Your task to perform on an android device: Open internet settings Image 0: 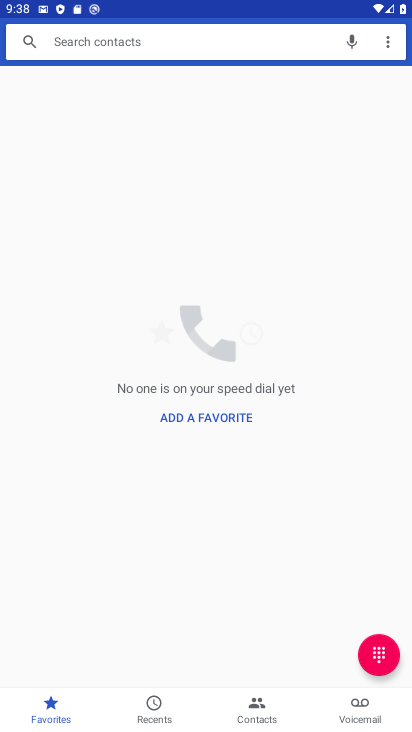
Step 0: press home button
Your task to perform on an android device: Open internet settings Image 1: 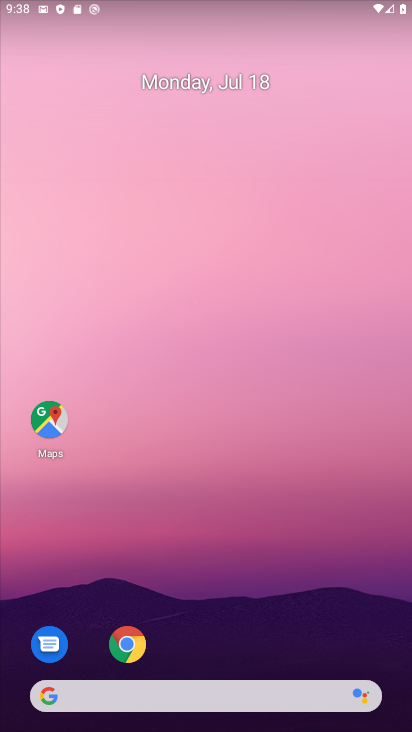
Step 1: drag from (256, 616) to (256, 92)
Your task to perform on an android device: Open internet settings Image 2: 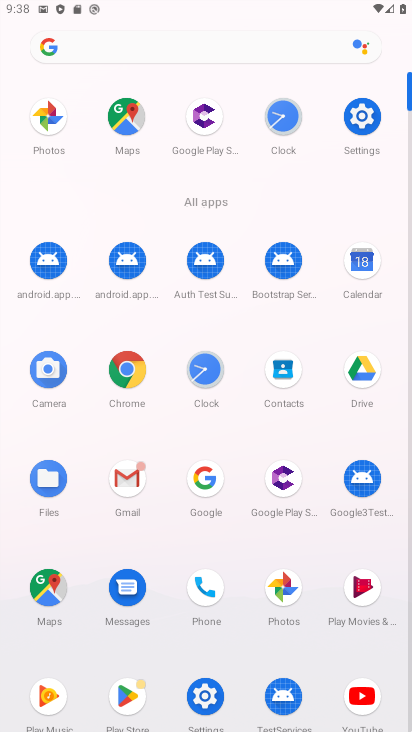
Step 2: click (357, 125)
Your task to perform on an android device: Open internet settings Image 3: 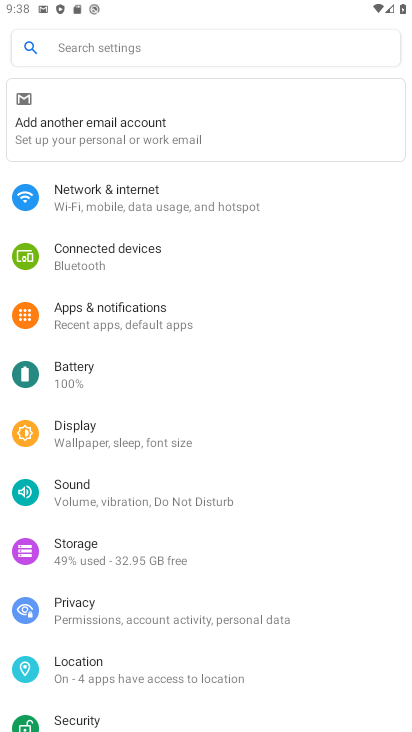
Step 3: click (133, 209)
Your task to perform on an android device: Open internet settings Image 4: 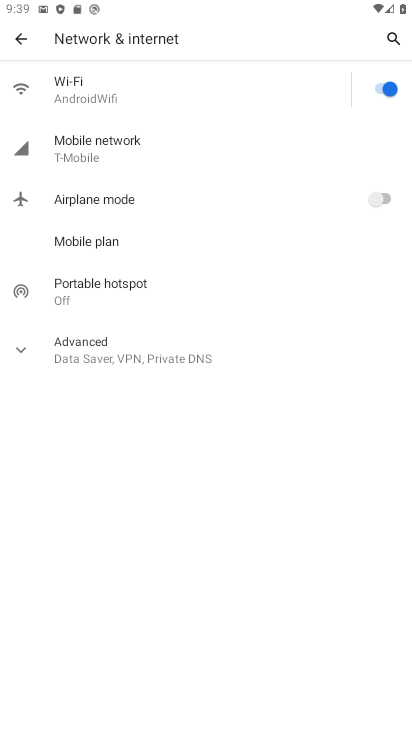
Step 4: click (122, 155)
Your task to perform on an android device: Open internet settings Image 5: 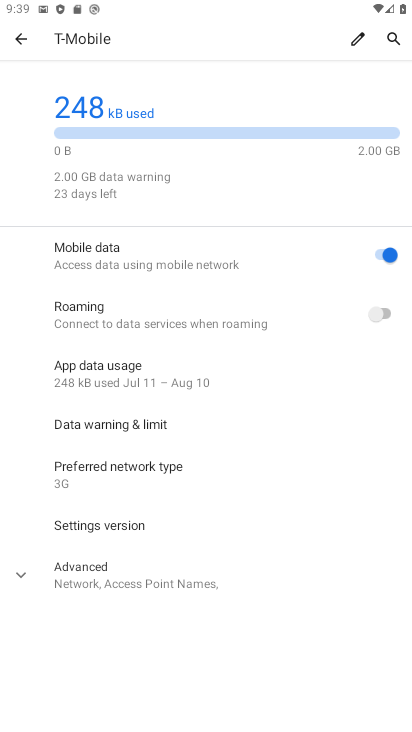
Step 5: task complete